Your task to perform on an android device: Open Google Chrome Image 0: 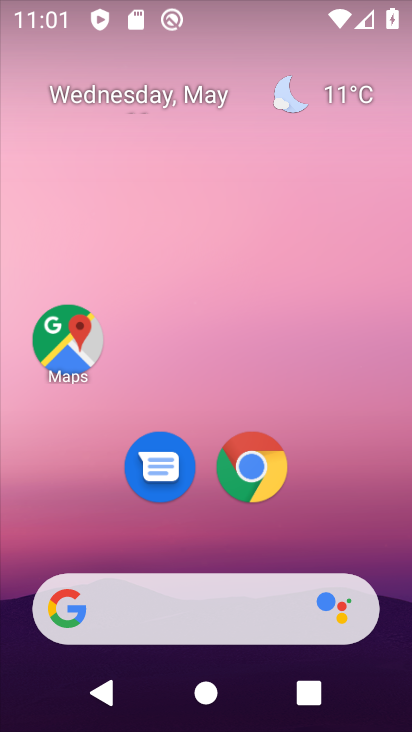
Step 0: click (271, 457)
Your task to perform on an android device: Open Google Chrome Image 1: 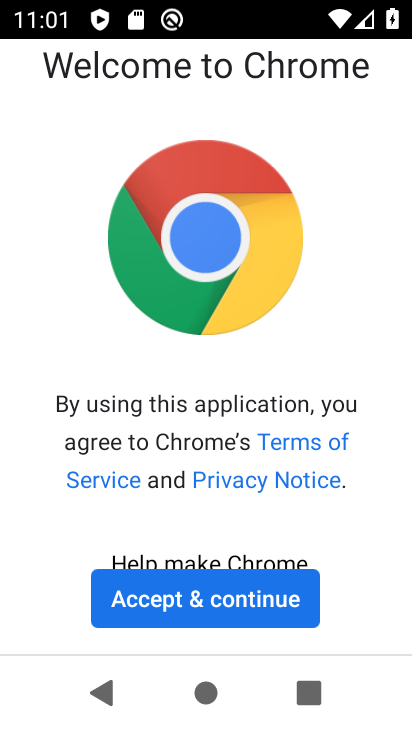
Step 1: click (304, 587)
Your task to perform on an android device: Open Google Chrome Image 2: 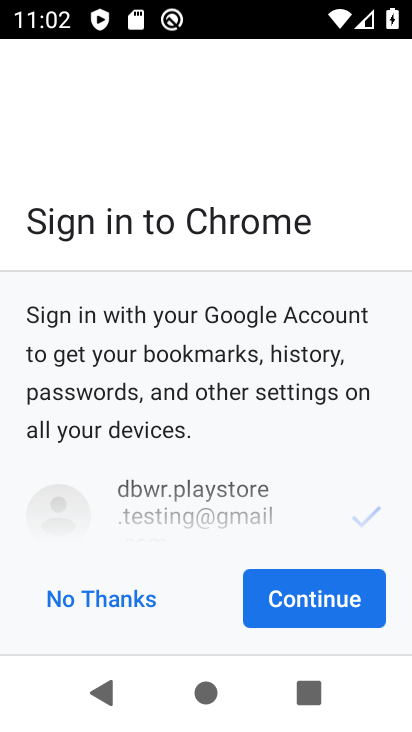
Step 2: click (330, 606)
Your task to perform on an android device: Open Google Chrome Image 3: 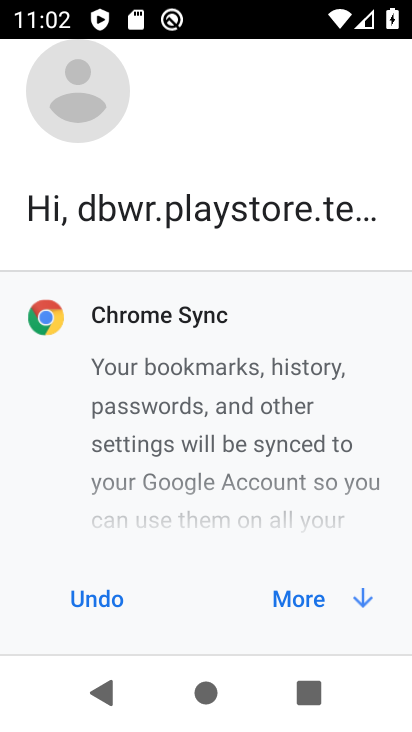
Step 3: click (325, 601)
Your task to perform on an android device: Open Google Chrome Image 4: 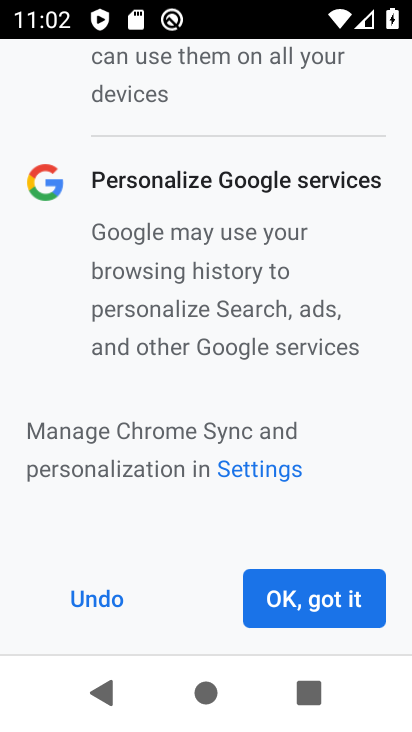
Step 4: click (330, 598)
Your task to perform on an android device: Open Google Chrome Image 5: 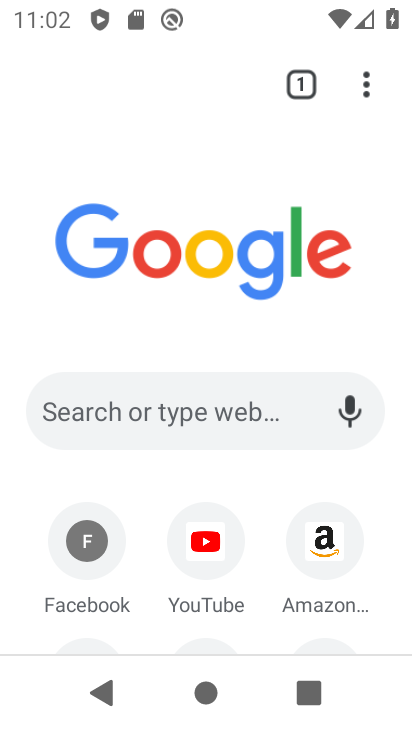
Step 5: task complete